Your task to perform on an android device: open app "Gmail" (install if not already installed) Image 0: 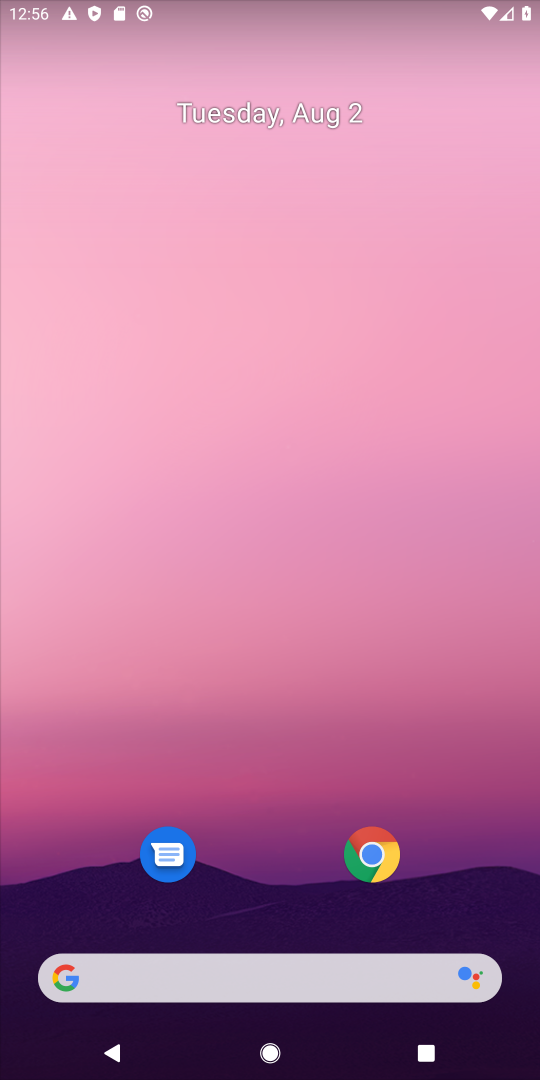
Step 0: drag from (317, 1074) to (289, 256)
Your task to perform on an android device: open app "Gmail" (install if not already installed) Image 1: 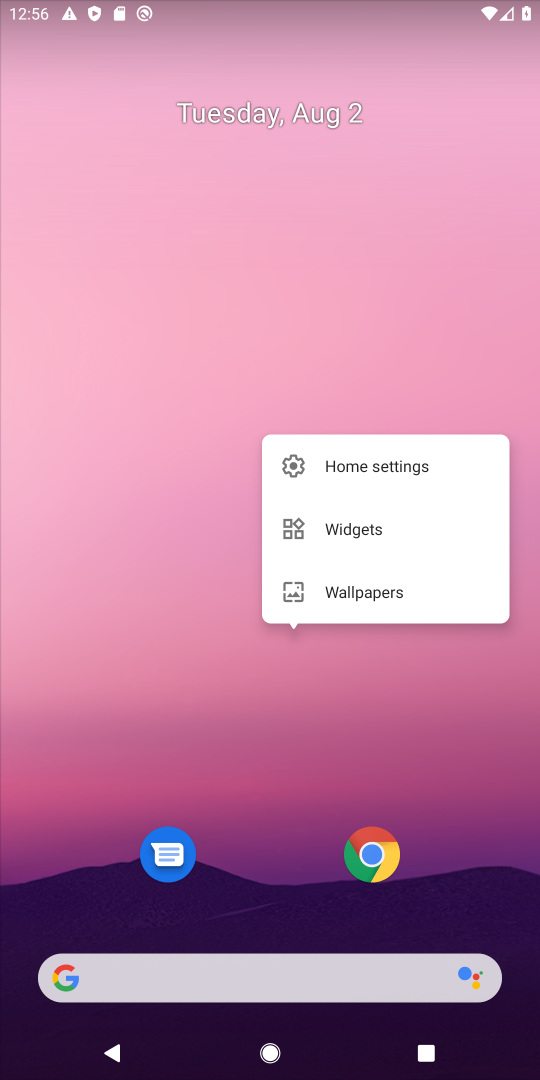
Step 1: click (241, 704)
Your task to perform on an android device: open app "Gmail" (install if not already installed) Image 2: 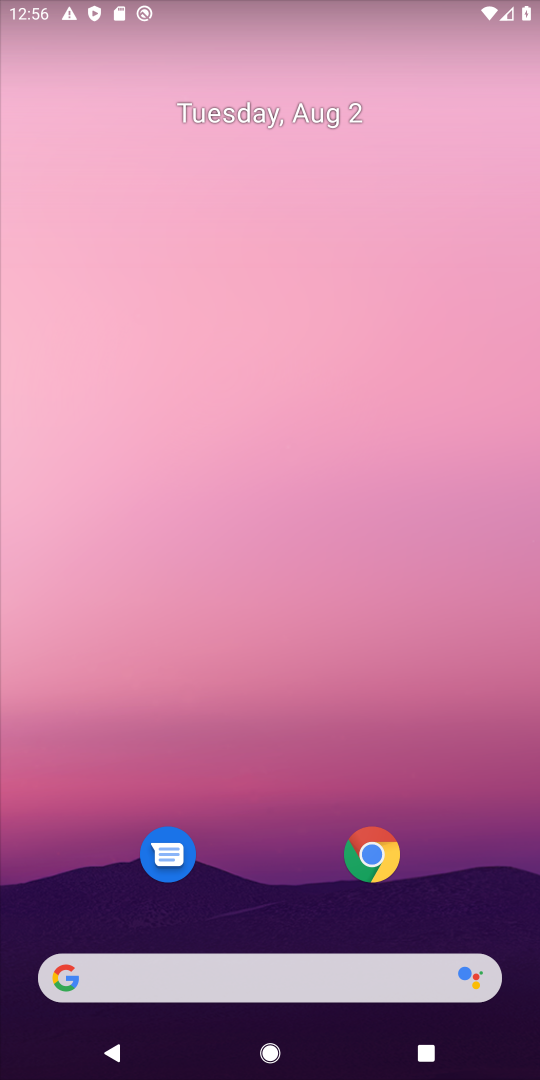
Step 2: drag from (323, 1076) to (252, 113)
Your task to perform on an android device: open app "Gmail" (install if not already installed) Image 3: 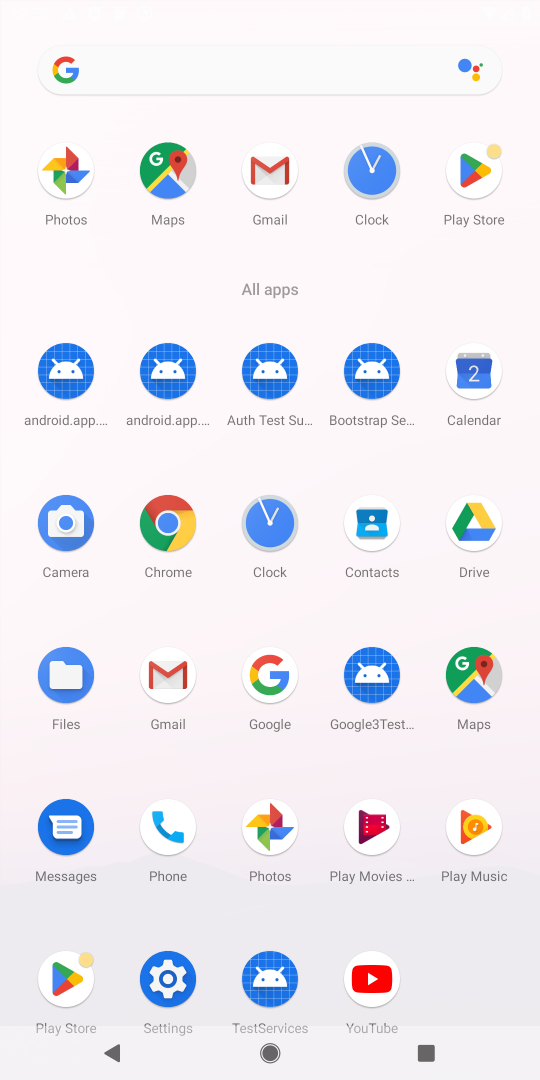
Step 3: click (161, 679)
Your task to perform on an android device: open app "Gmail" (install if not already installed) Image 4: 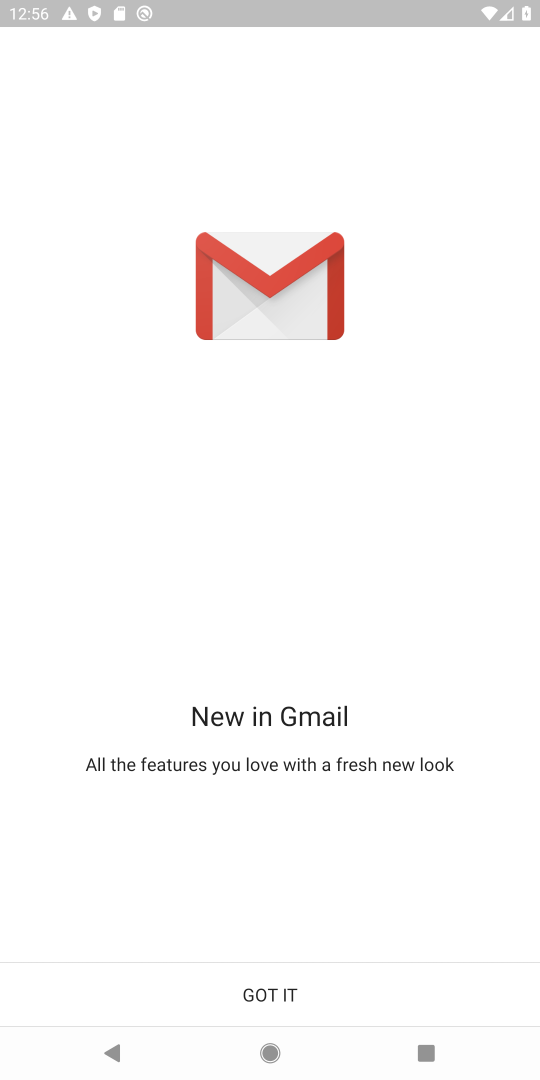
Step 4: click (267, 994)
Your task to perform on an android device: open app "Gmail" (install if not already installed) Image 5: 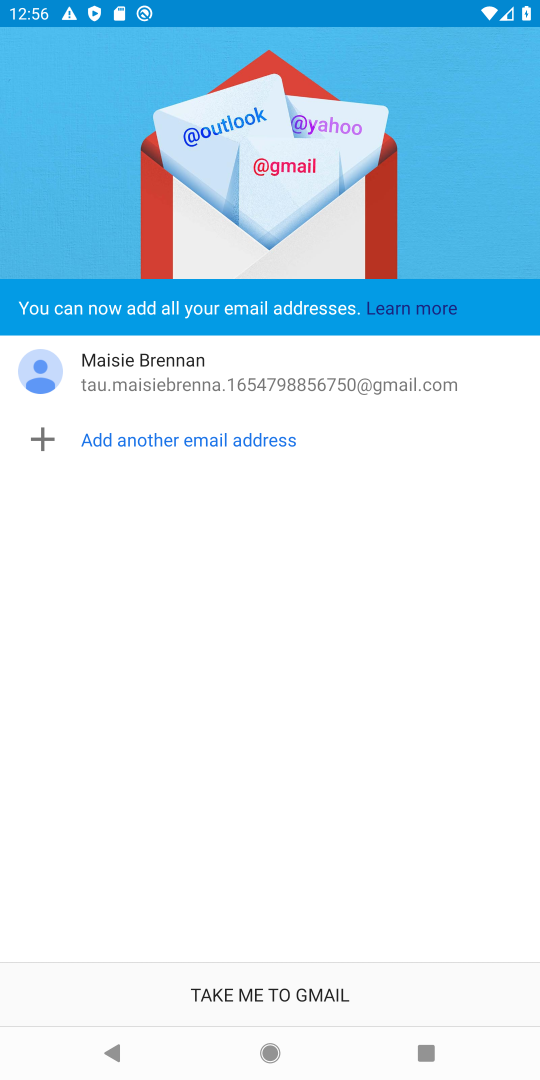
Step 5: task complete